Your task to perform on an android device: see sites visited before in the chrome app Image 0: 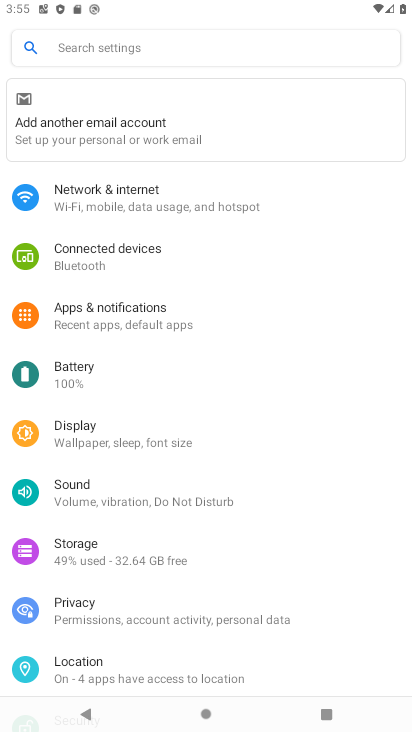
Step 0: press home button
Your task to perform on an android device: see sites visited before in the chrome app Image 1: 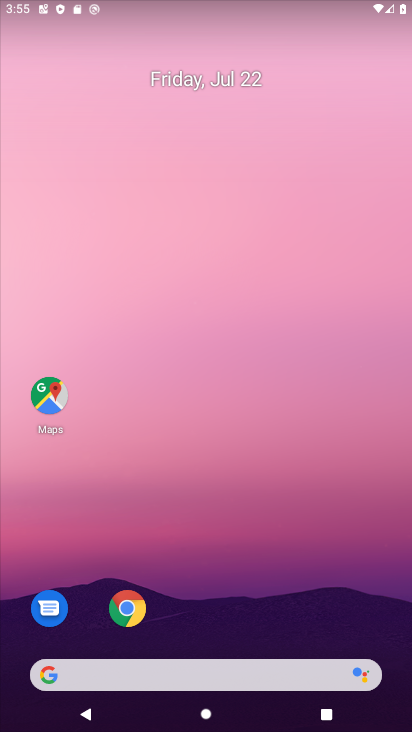
Step 1: click (127, 607)
Your task to perform on an android device: see sites visited before in the chrome app Image 2: 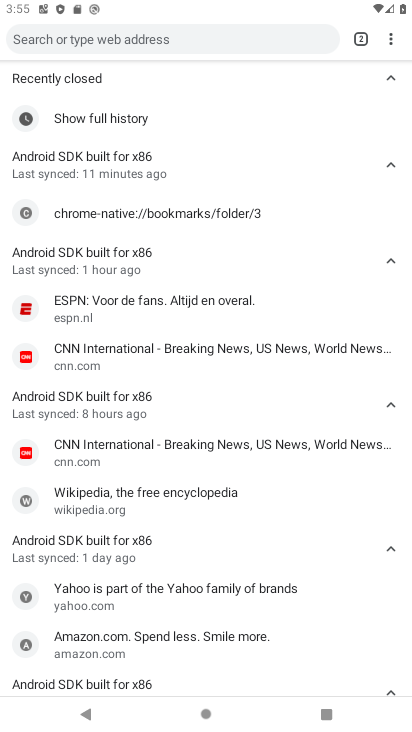
Step 2: click (388, 44)
Your task to perform on an android device: see sites visited before in the chrome app Image 3: 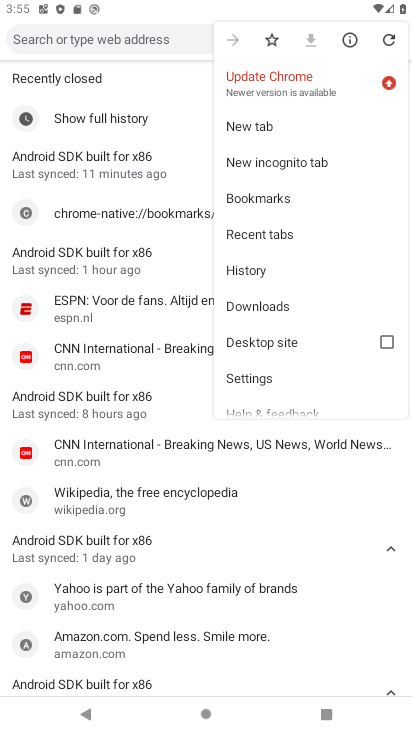
Step 3: click (241, 273)
Your task to perform on an android device: see sites visited before in the chrome app Image 4: 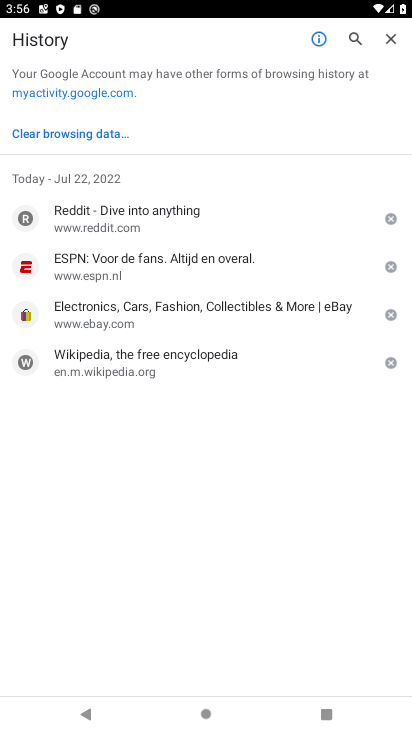
Step 4: task complete